Your task to perform on an android device: Check the news Image 0: 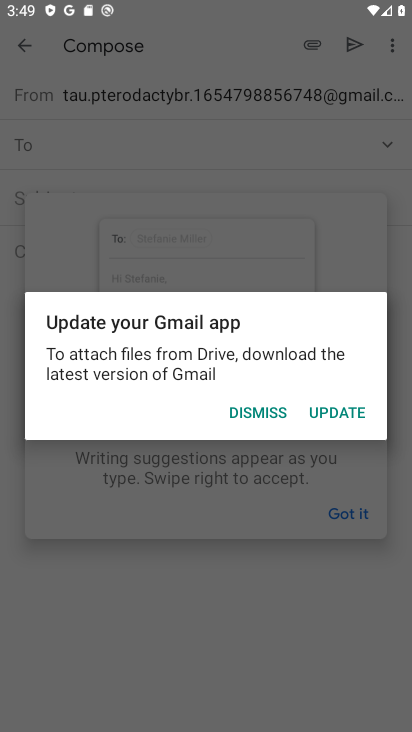
Step 0: press home button
Your task to perform on an android device: Check the news Image 1: 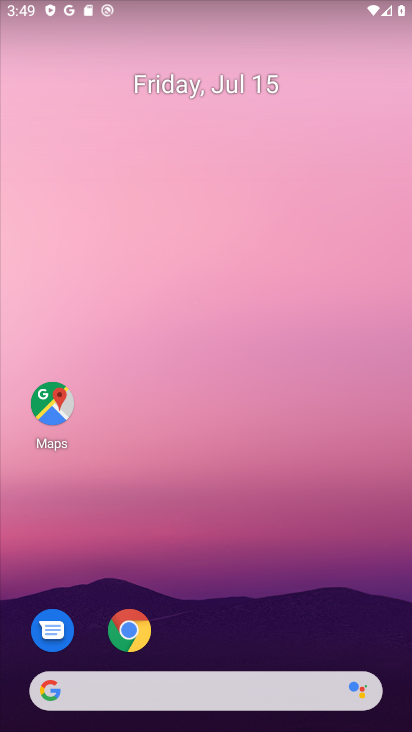
Step 1: task complete